Your task to perform on an android device: add a contact Image 0: 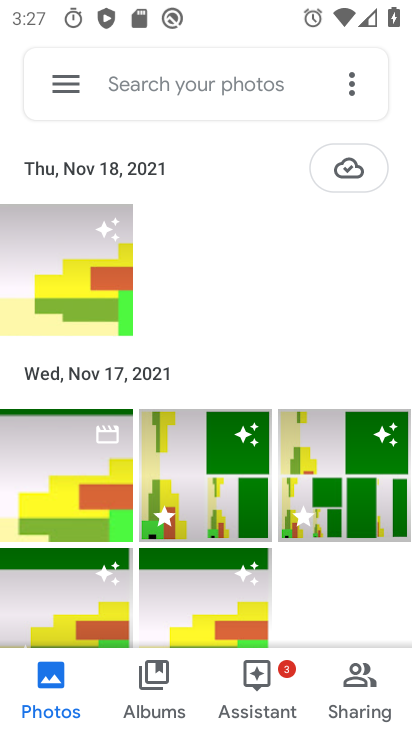
Step 0: press home button
Your task to perform on an android device: add a contact Image 1: 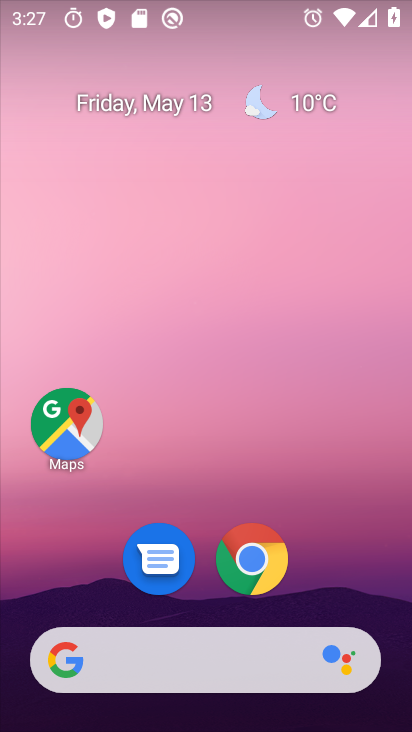
Step 1: drag from (200, 605) to (291, 157)
Your task to perform on an android device: add a contact Image 2: 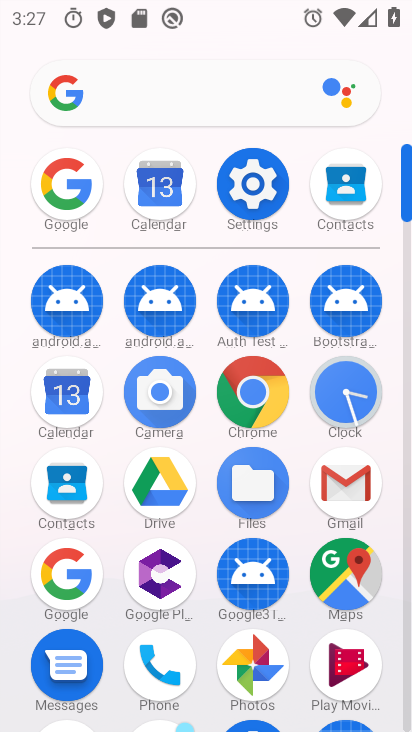
Step 2: click (78, 480)
Your task to perform on an android device: add a contact Image 3: 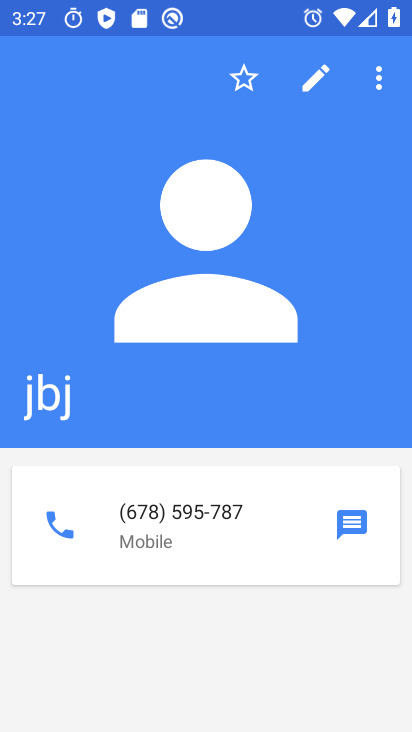
Step 3: press back button
Your task to perform on an android device: add a contact Image 4: 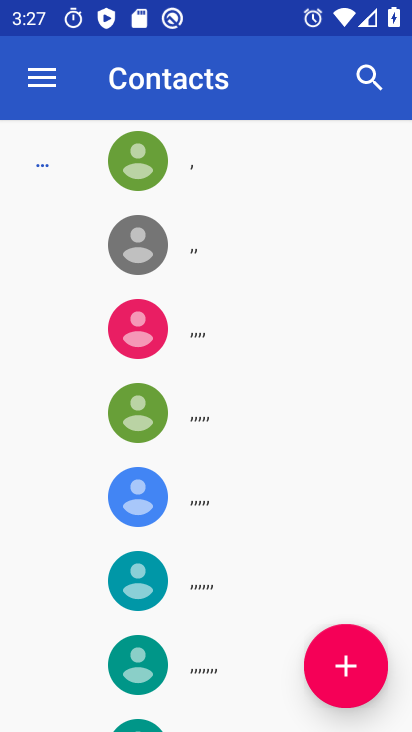
Step 4: click (355, 664)
Your task to perform on an android device: add a contact Image 5: 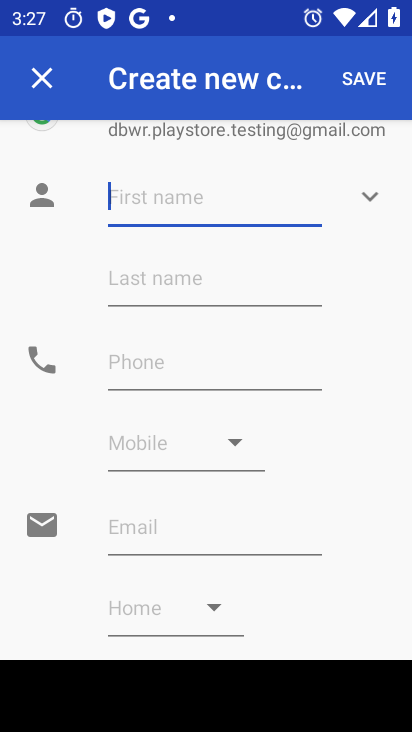
Step 5: type "vjk"
Your task to perform on an android device: add a contact Image 6: 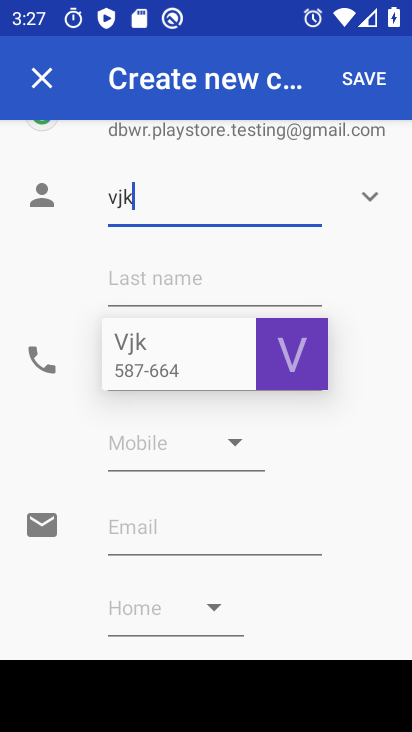
Step 6: click (82, 363)
Your task to perform on an android device: add a contact Image 7: 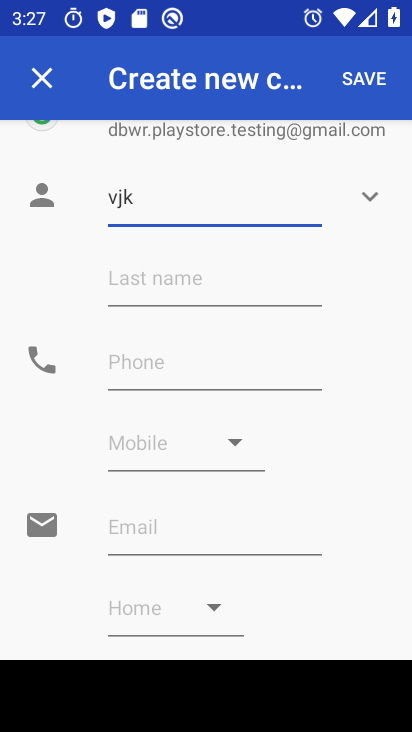
Step 7: click (122, 361)
Your task to perform on an android device: add a contact Image 8: 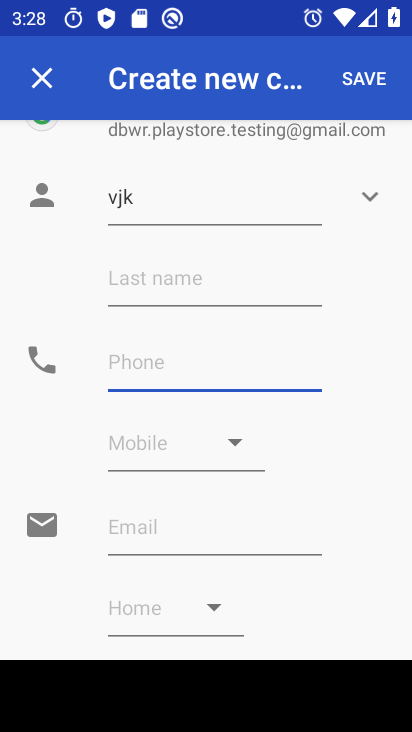
Step 8: type "647467586998"
Your task to perform on an android device: add a contact Image 9: 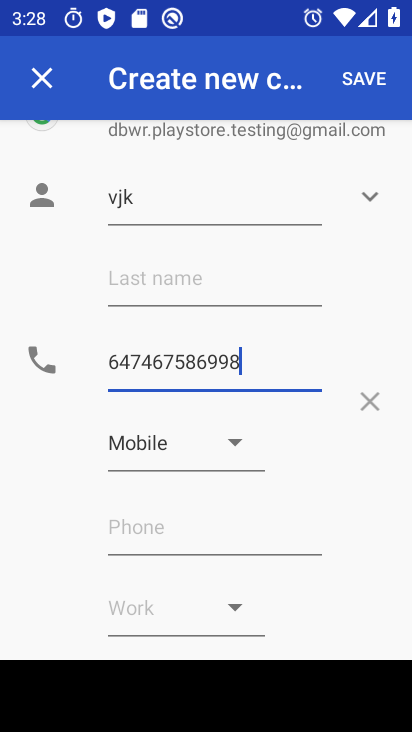
Step 9: click (364, 75)
Your task to perform on an android device: add a contact Image 10: 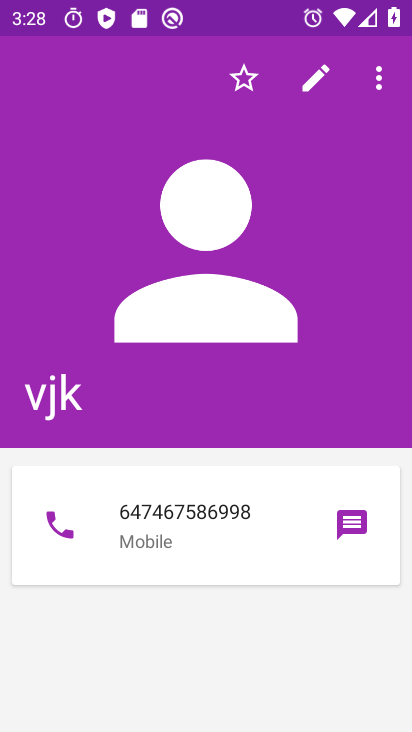
Step 10: task complete